Your task to perform on an android device: all mails in gmail Image 0: 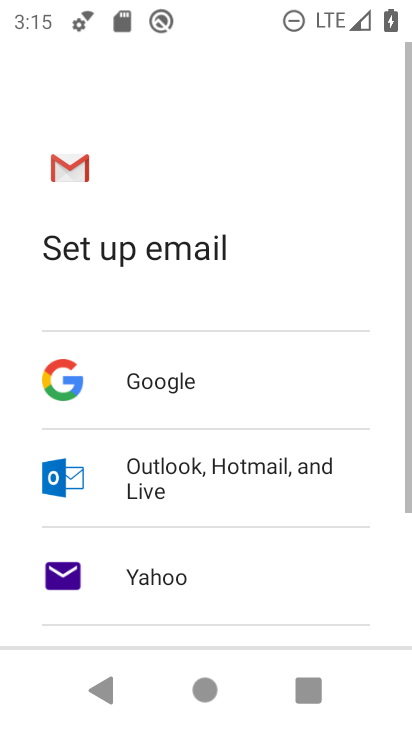
Step 0: press home button
Your task to perform on an android device: all mails in gmail Image 1: 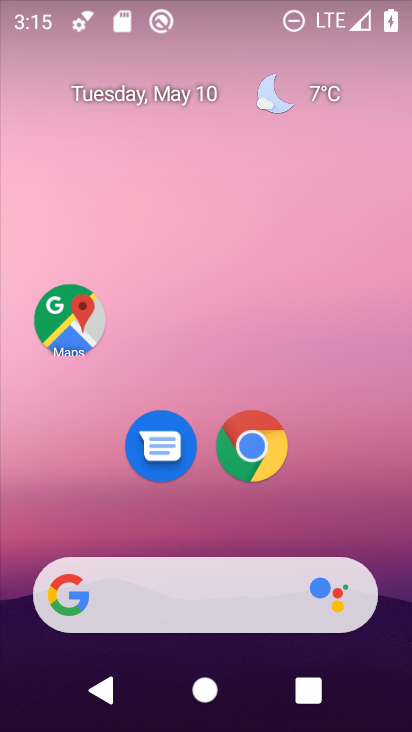
Step 1: drag from (272, 520) to (235, 53)
Your task to perform on an android device: all mails in gmail Image 2: 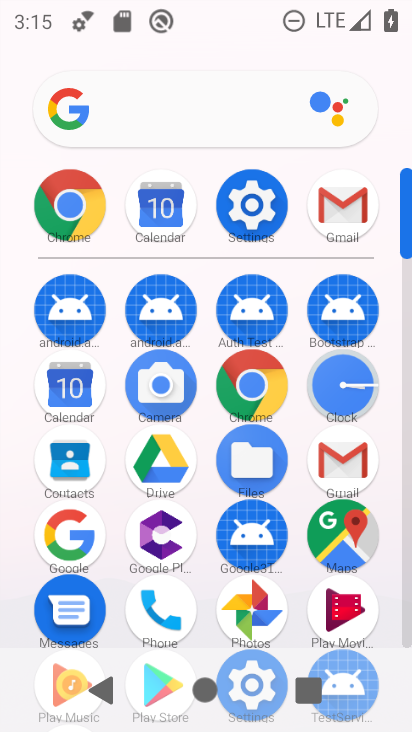
Step 2: click (337, 454)
Your task to perform on an android device: all mails in gmail Image 3: 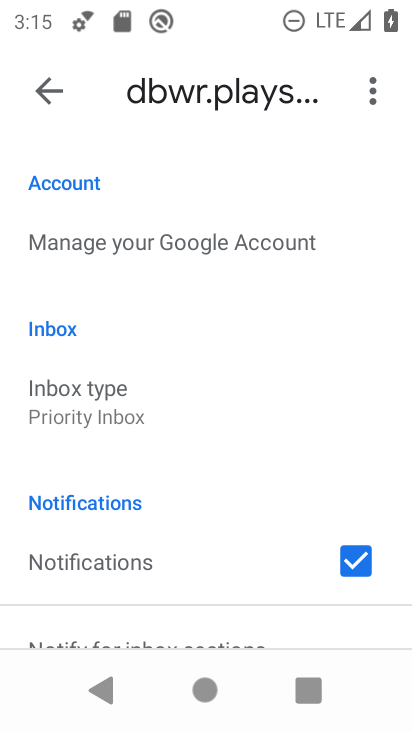
Step 3: click (35, 86)
Your task to perform on an android device: all mails in gmail Image 4: 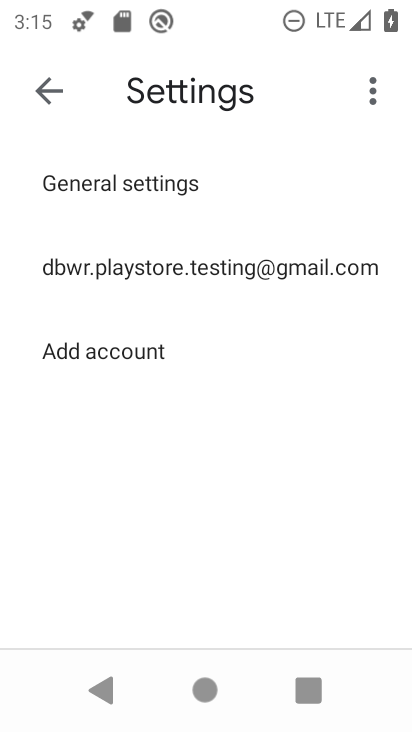
Step 4: click (49, 95)
Your task to perform on an android device: all mails in gmail Image 5: 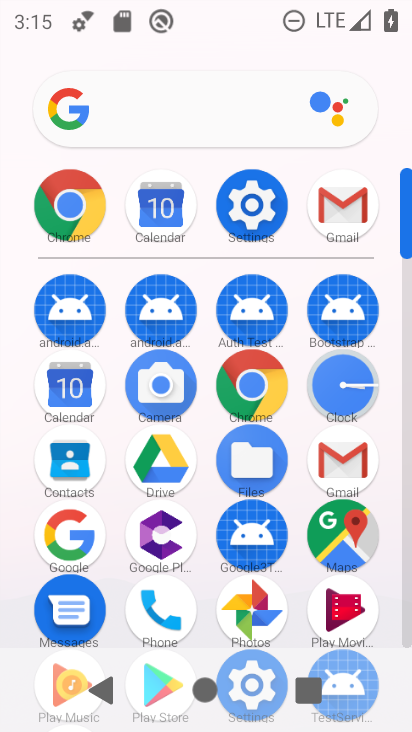
Step 5: click (334, 458)
Your task to perform on an android device: all mails in gmail Image 6: 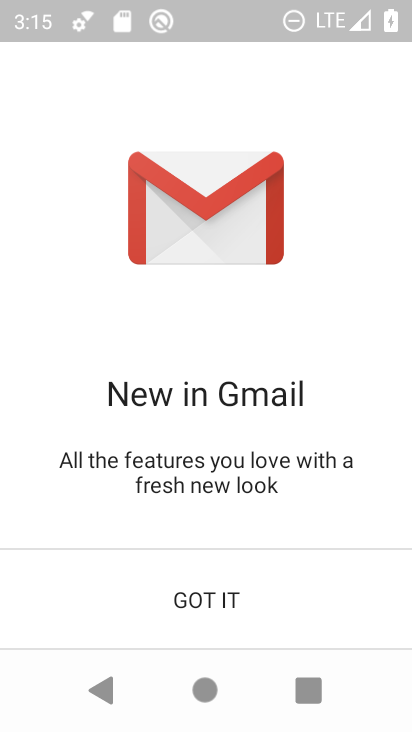
Step 6: click (205, 572)
Your task to perform on an android device: all mails in gmail Image 7: 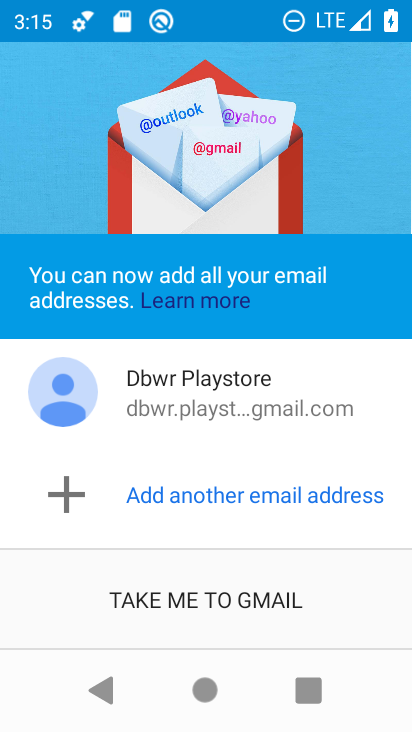
Step 7: click (224, 600)
Your task to perform on an android device: all mails in gmail Image 8: 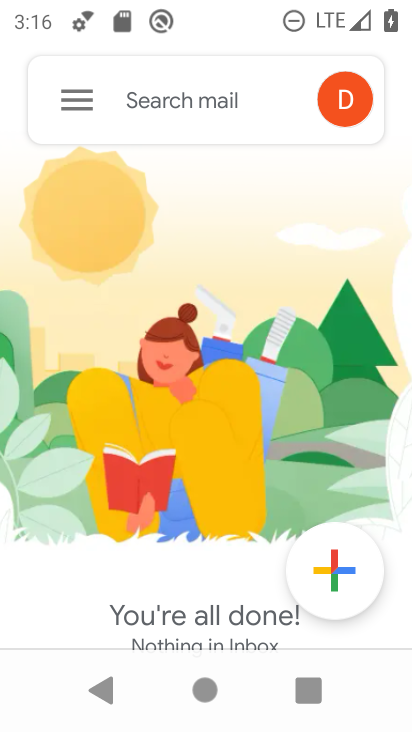
Step 8: click (70, 100)
Your task to perform on an android device: all mails in gmail Image 9: 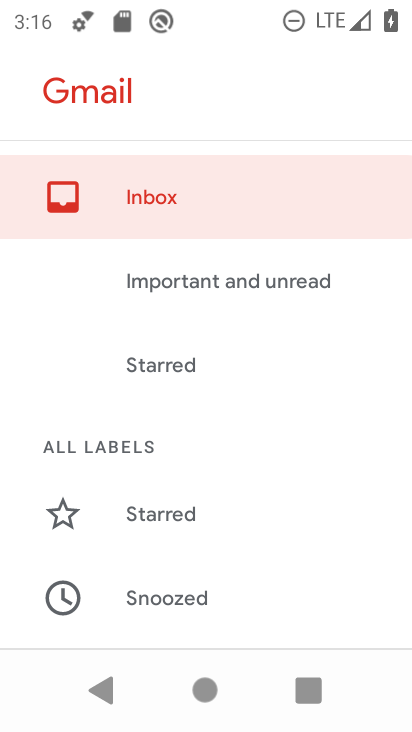
Step 9: drag from (219, 504) to (211, 102)
Your task to perform on an android device: all mails in gmail Image 10: 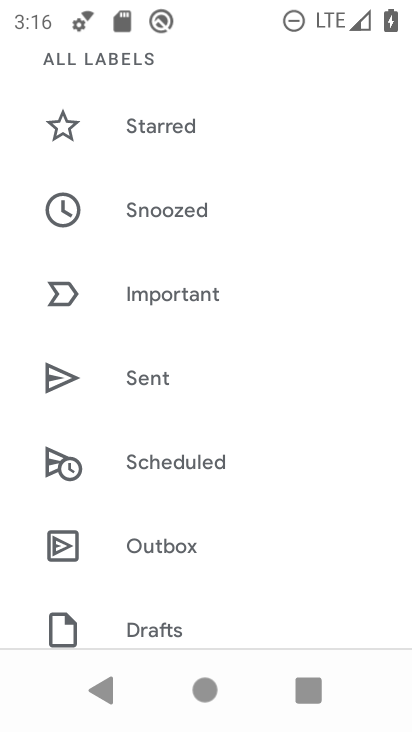
Step 10: drag from (219, 568) to (227, 295)
Your task to perform on an android device: all mails in gmail Image 11: 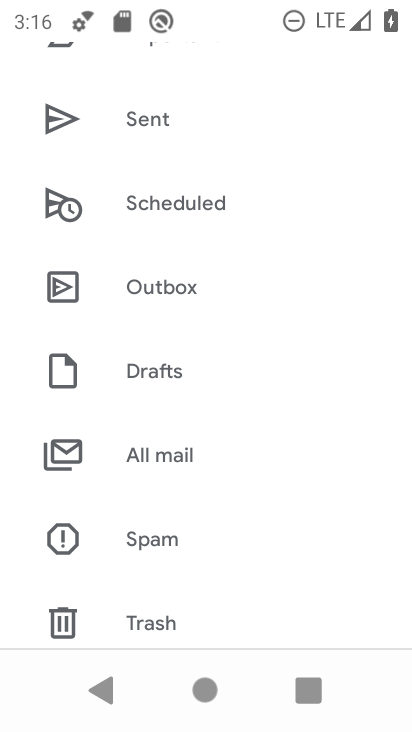
Step 11: click (189, 450)
Your task to perform on an android device: all mails in gmail Image 12: 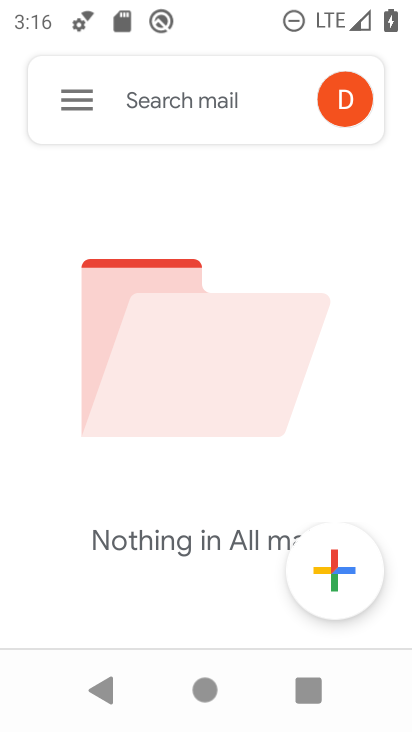
Step 12: task complete